Your task to perform on an android device: move a message to another label in the gmail app Image 0: 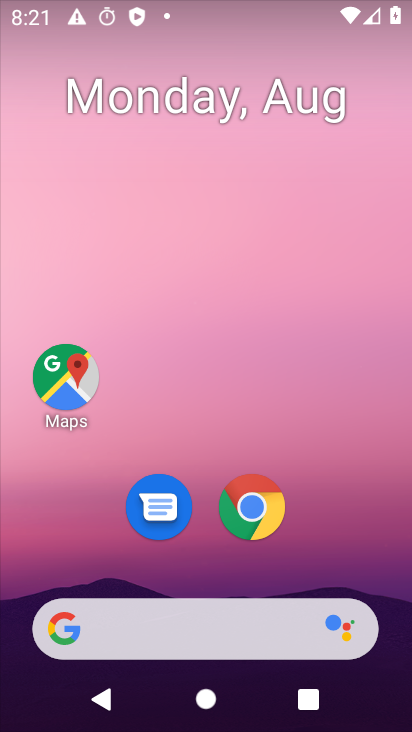
Step 0: drag from (233, 634) to (400, 27)
Your task to perform on an android device: move a message to another label in the gmail app Image 1: 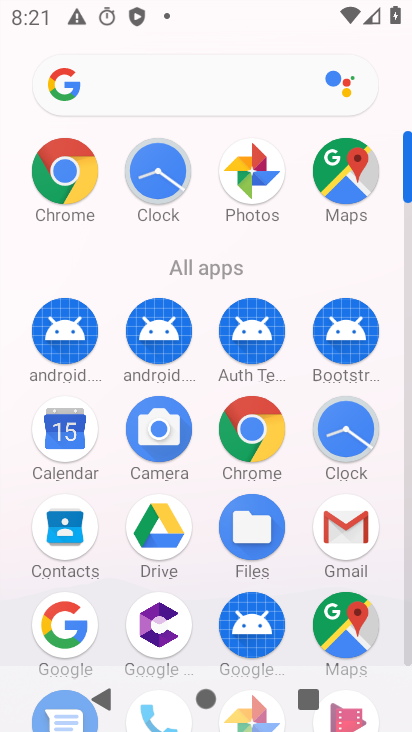
Step 1: click (339, 529)
Your task to perform on an android device: move a message to another label in the gmail app Image 2: 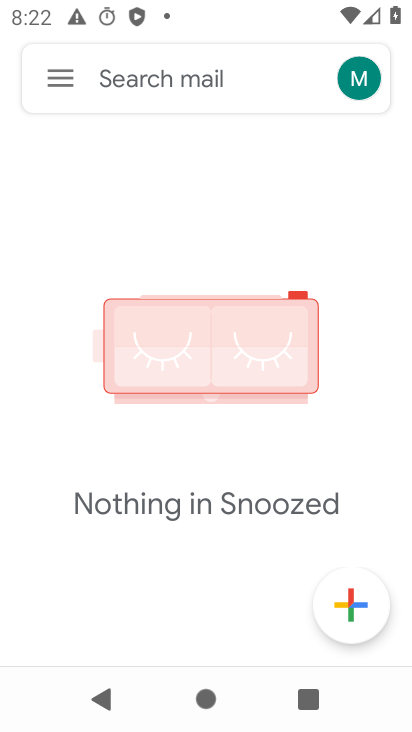
Step 2: click (56, 78)
Your task to perform on an android device: move a message to another label in the gmail app Image 3: 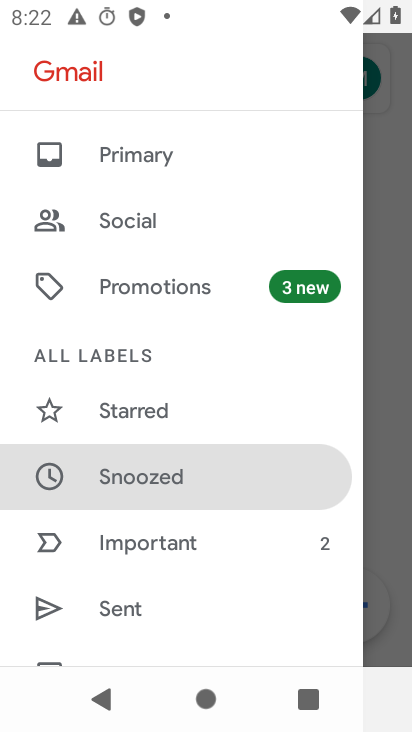
Step 3: drag from (213, 598) to (261, 147)
Your task to perform on an android device: move a message to another label in the gmail app Image 4: 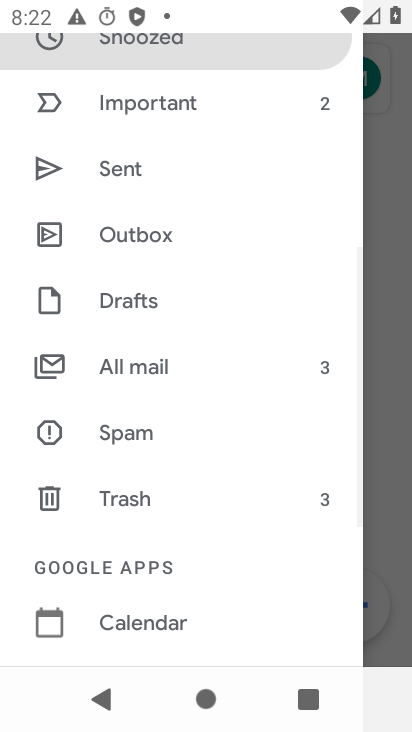
Step 4: click (175, 361)
Your task to perform on an android device: move a message to another label in the gmail app Image 5: 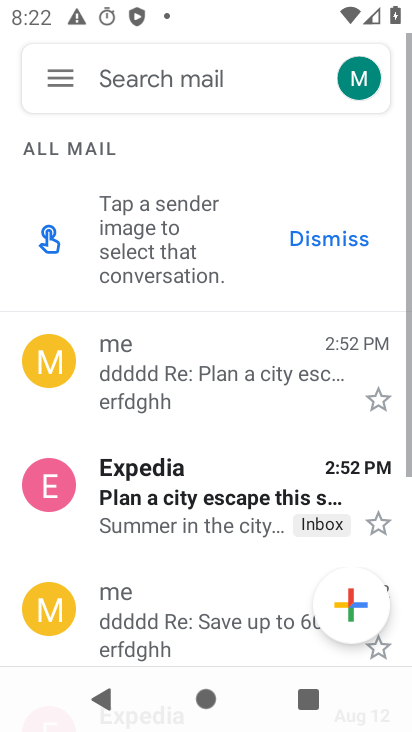
Step 5: click (158, 381)
Your task to perform on an android device: move a message to another label in the gmail app Image 6: 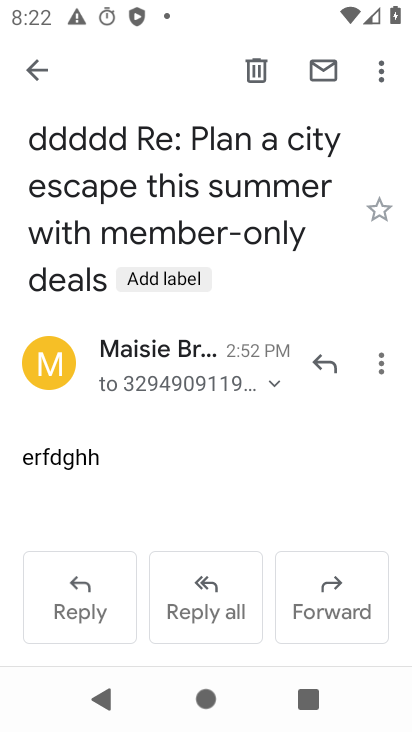
Step 6: click (173, 272)
Your task to perform on an android device: move a message to another label in the gmail app Image 7: 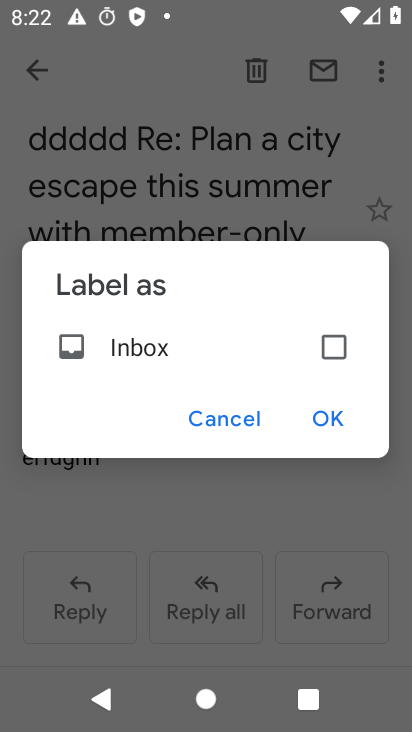
Step 7: click (338, 349)
Your task to perform on an android device: move a message to another label in the gmail app Image 8: 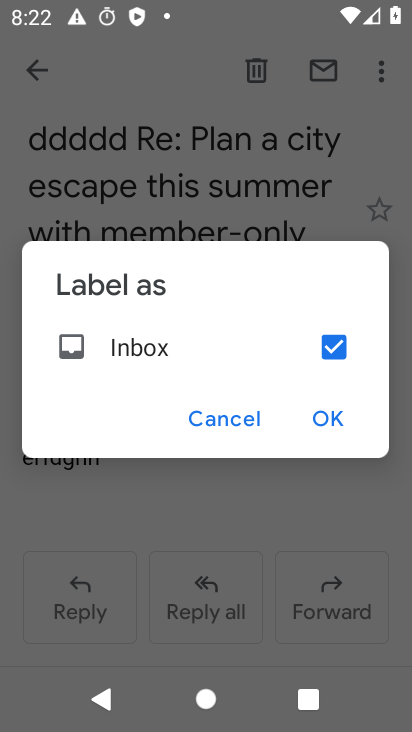
Step 8: click (324, 423)
Your task to perform on an android device: move a message to another label in the gmail app Image 9: 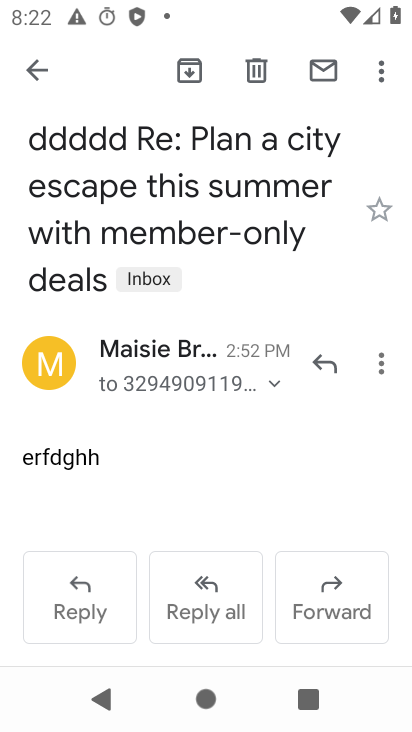
Step 9: task complete